Your task to perform on an android device: turn on priority inbox in the gmail app Image 0: 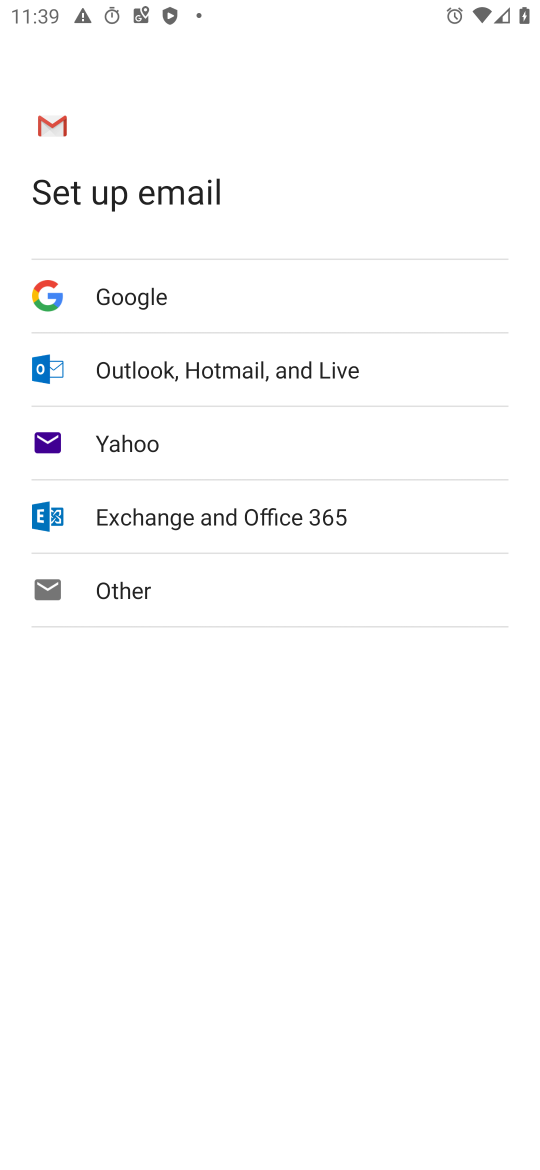
Step 0: press home button
Your task to perform on an android device: turn on priority inbox in the gmail app Image 1: 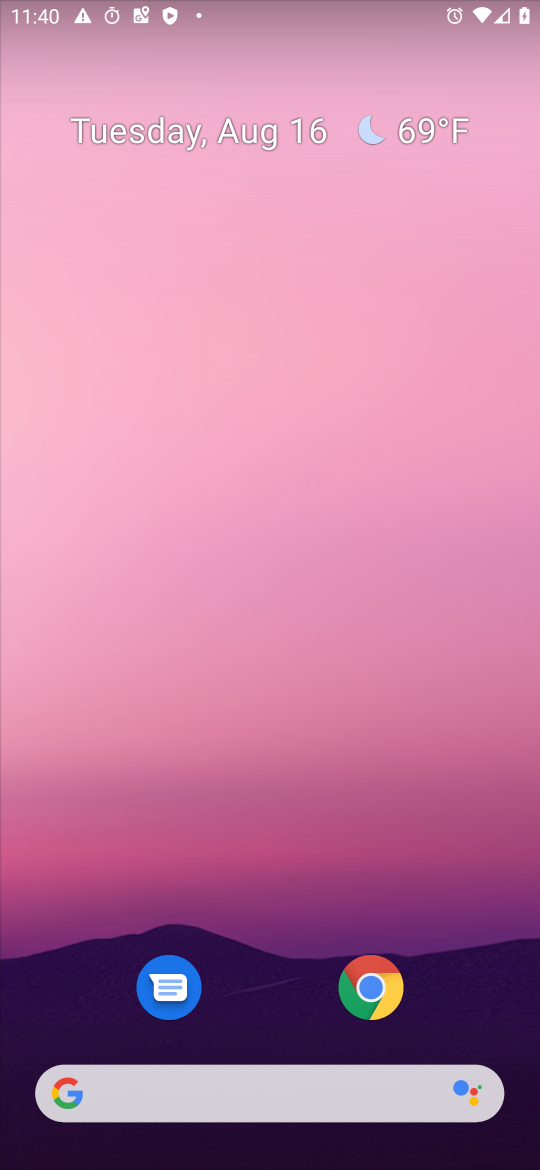
Step 1: drag from (26, 1125) to (245, 316)
Your task to perform on an android device: turn on priority inbox in the gmail app Image 2: 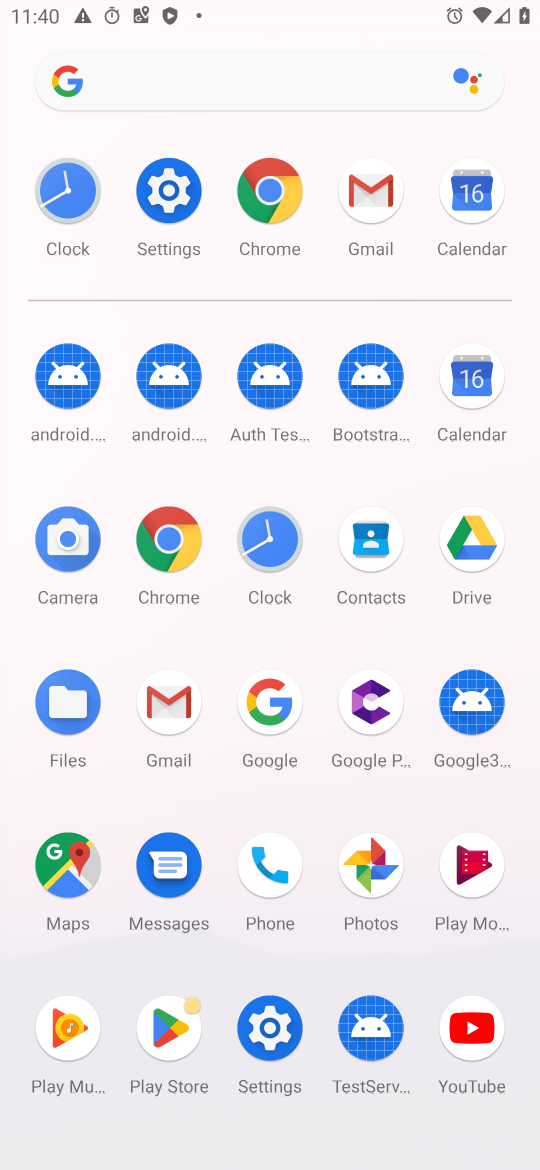
Step 2: click (257, 1041)
Your task to perform on an android device: turn on priority inbox in the gmail app Image 3: 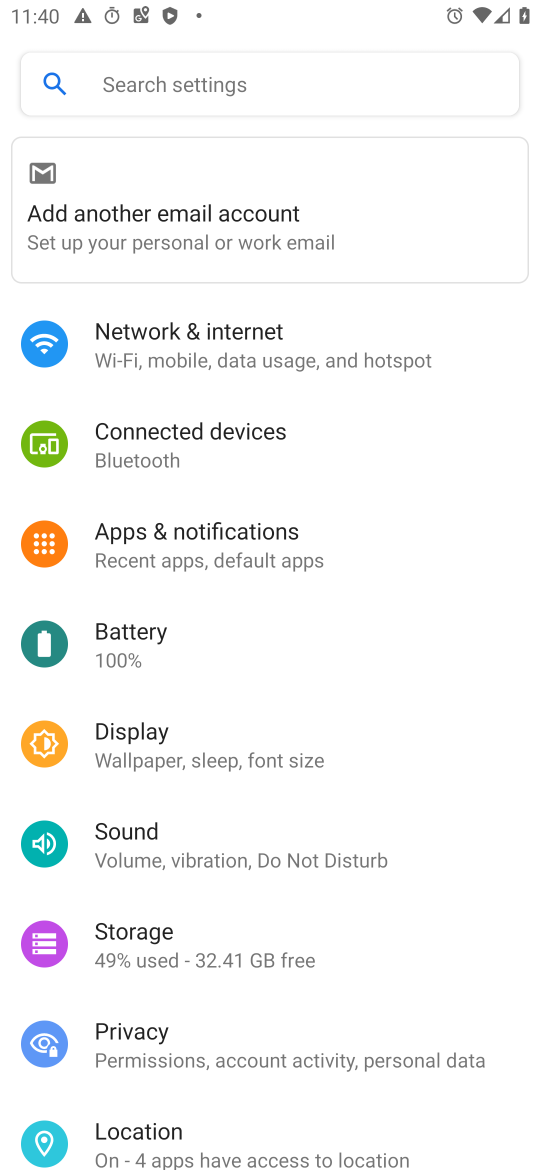
Step 3: press home button
Your task to perform on an android device: turn on priority inbox in the gmail app Image 4: 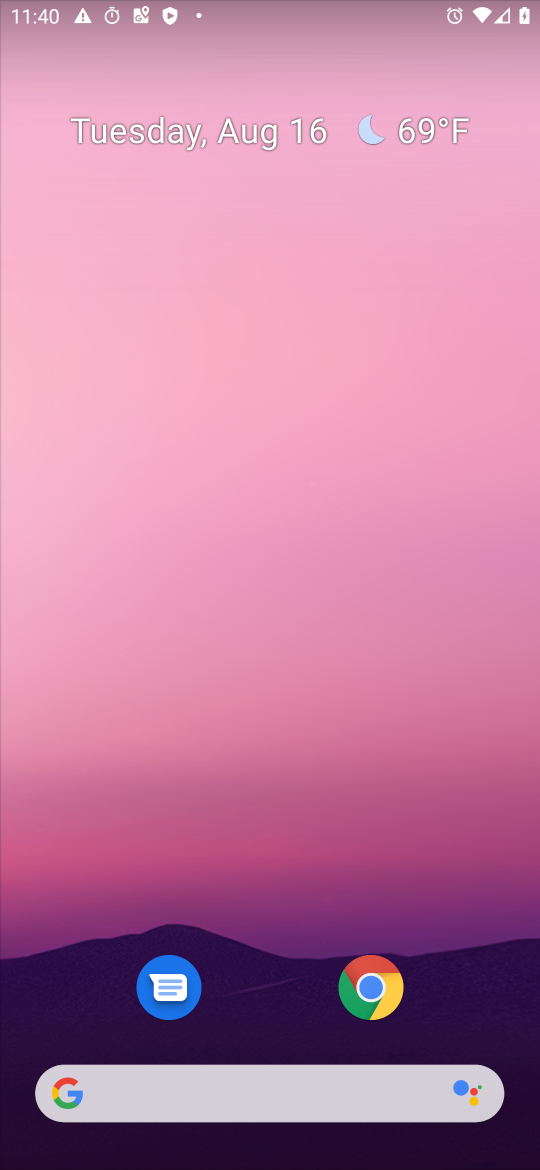
Step 4: drag from (16, 1104) to (274, 151)
Your task to perform on an android device: turn on priority inbox in the gmail app Image 5: 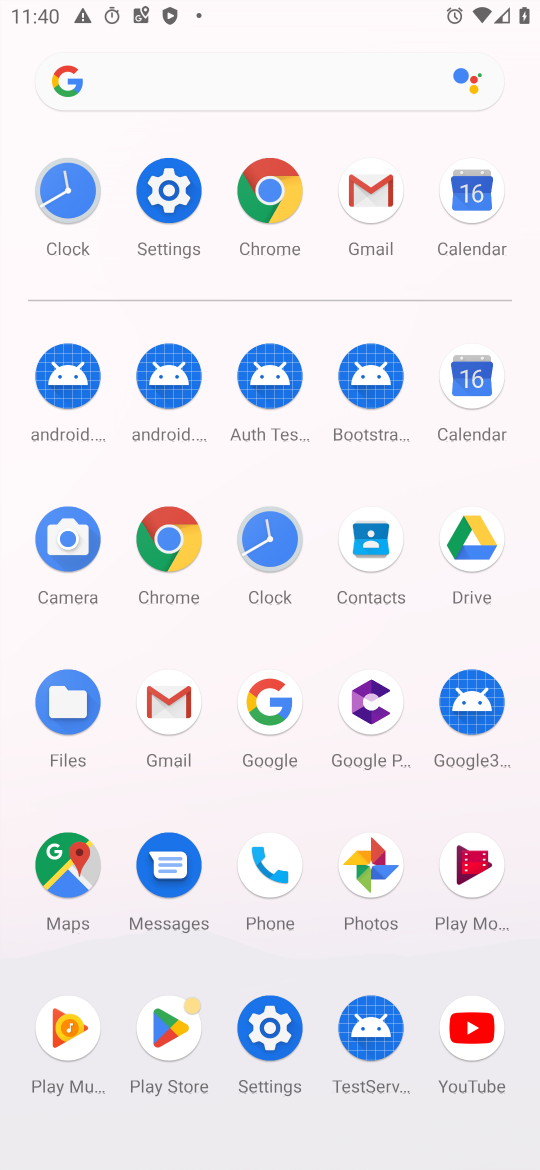
Step 5: click (166, 699)
Your task to perform on an android device: turn on priority inbox in the gmail app Image 6: 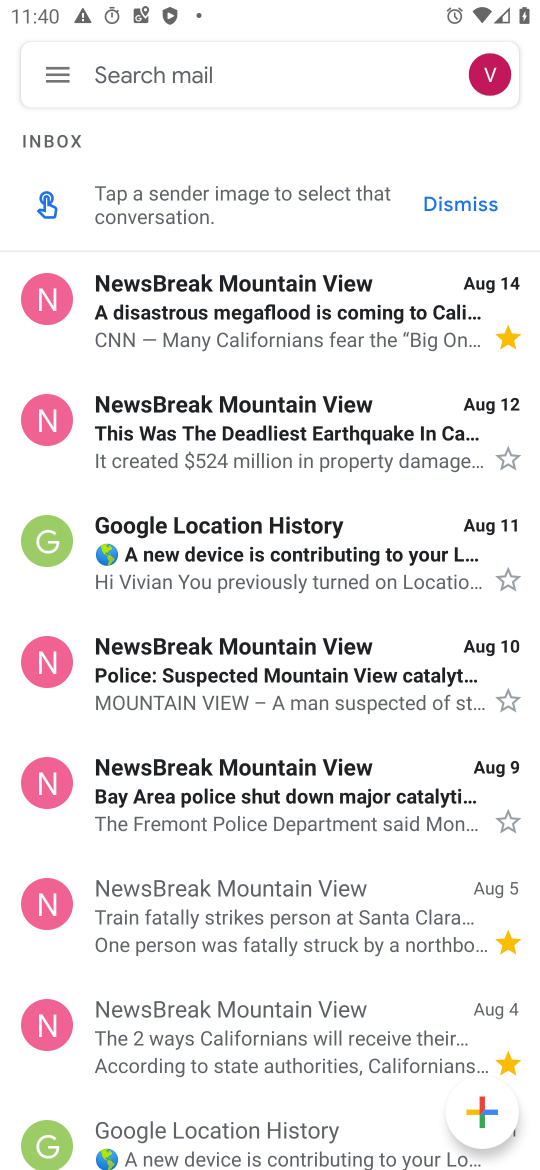
Step 6: click (55, 69)
Your task to perform on an android device: turn on priority inbox in the gmail app Image 7: 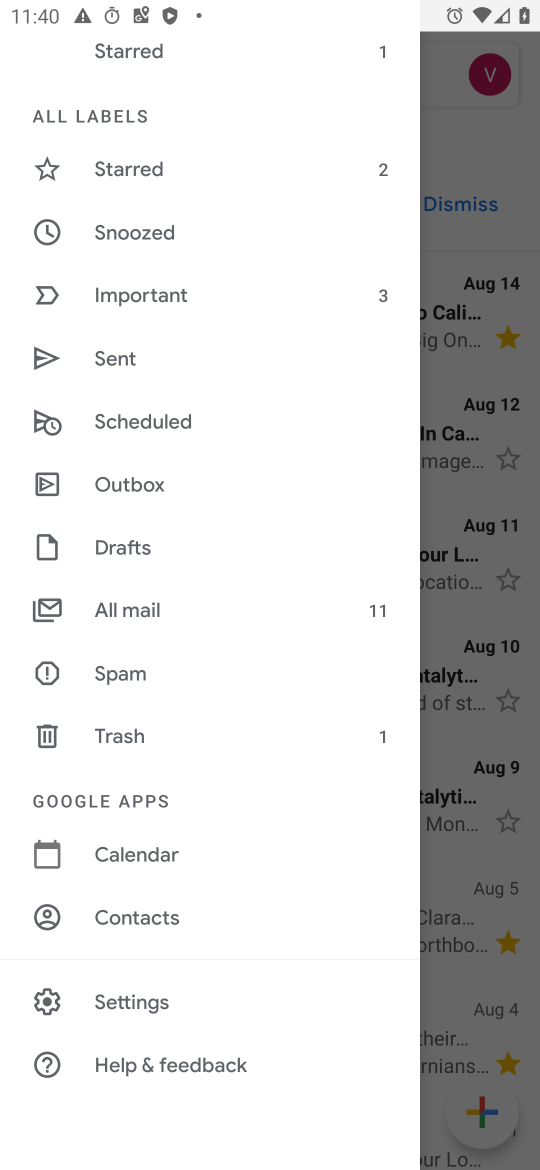
Step 7: click (137, 999)
Your task to perform on an android device: turn on priority inbox in the gmail app Image 8: 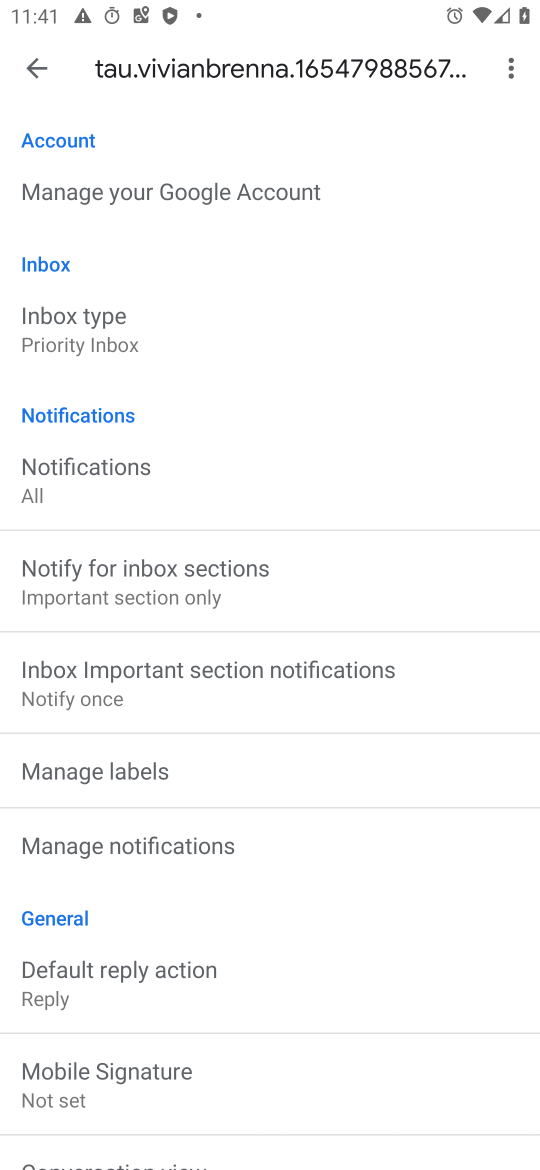
Step 8: task complete